Your task to perform on an android device: What's the weather going to be tomorrow? Image 0: 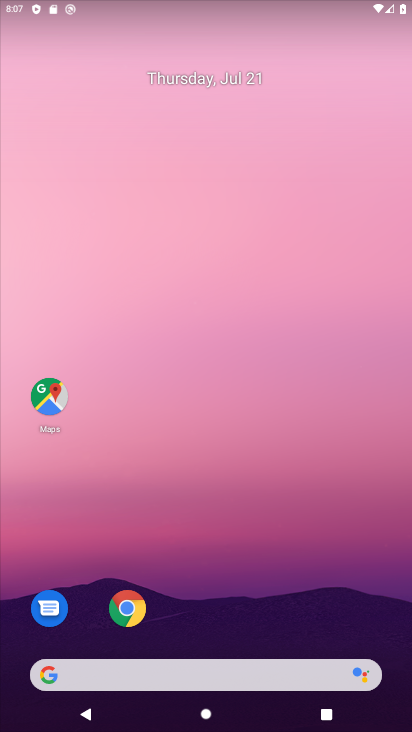
Step 0: click (89, 673)
Your task to perform on an android device: What's the weather going to be tomorrow? Image 1: 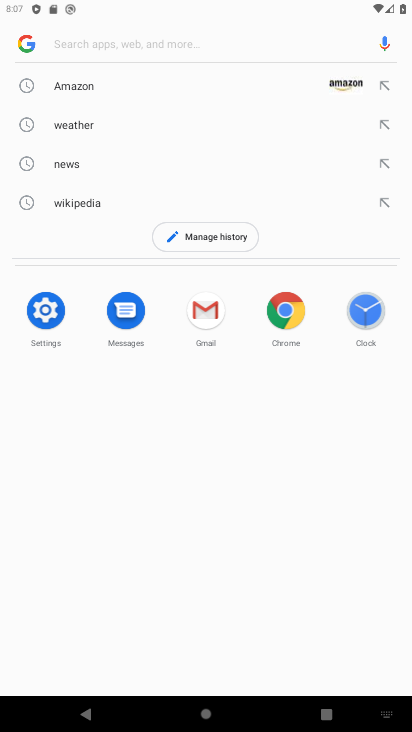
Step 1: type "What's the weather going to be tomorrow?"
Your task to perform on an android device: What's the weather going to be tomorrow? Image 2: 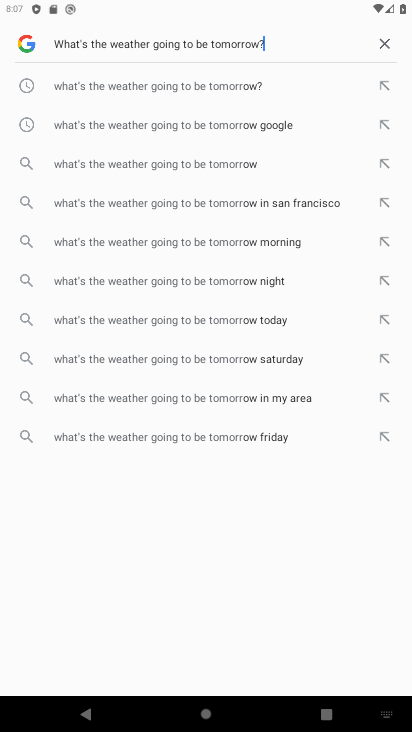
Step 2: type ""
Your task to perform on an android device: What's the weather going to be tomorrow? Image 3: 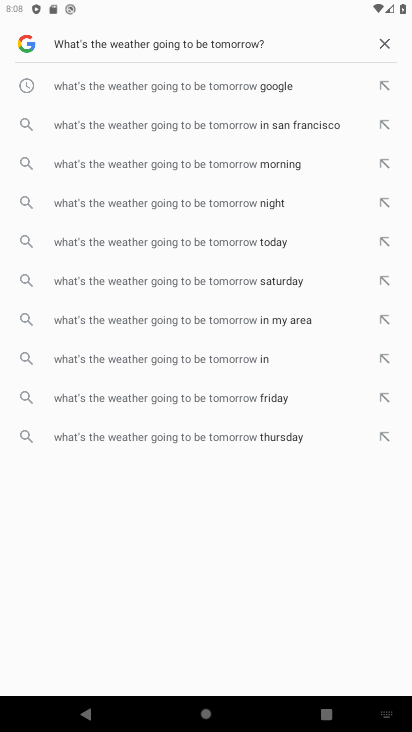
Step 3: type ""
Your task to perform on an android device: What's the weather going to be tomorrow? Image 4: 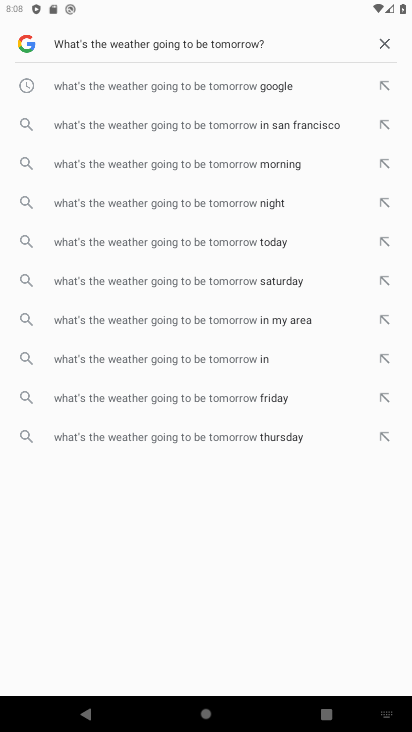
Step 4: type ""
Your task to perform on an android device: What's the weather going to be tomorrow? Image 5: 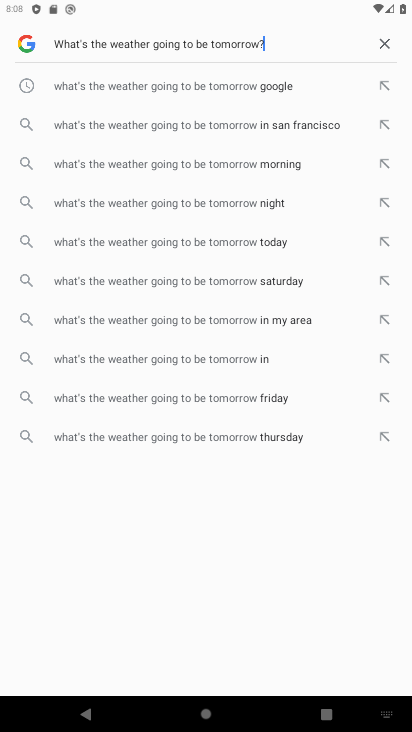
Step 5: task complete